Your task to perform on an android device: toggle location history Image 0: 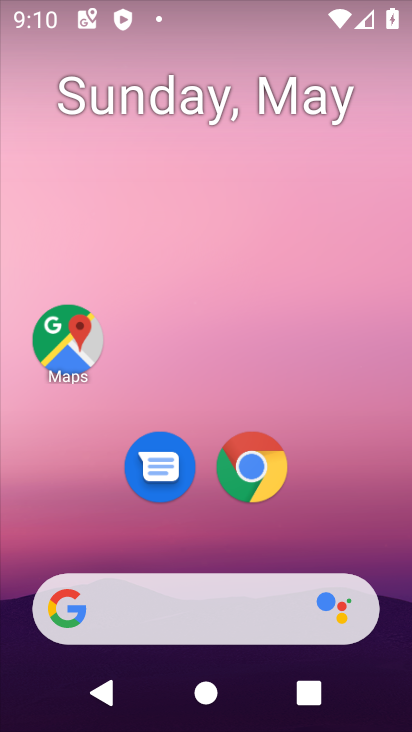
Step 0: drag from (359, 549) to (257, 179)
Your task to perform on an android device: toggle location history Image 1: 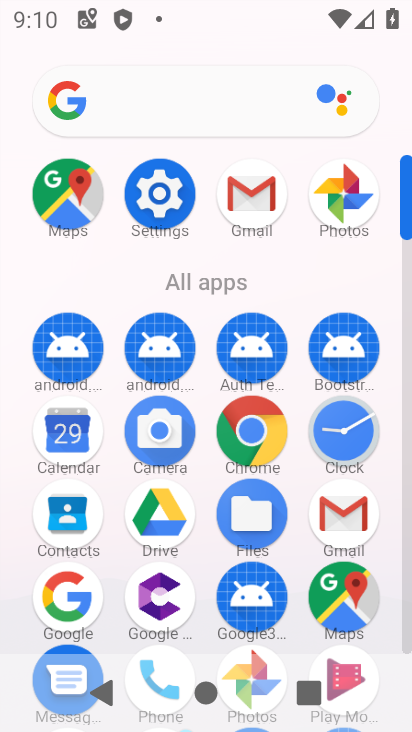
Step 1: click (56, 202)
Your task to perform on an android device: toggle location history Image 2: 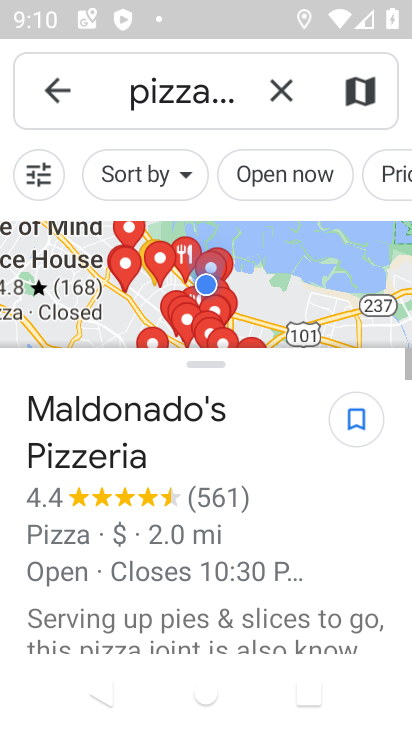
Step 2: click (55, 79)
Your task to perform on an android device: toggle location history Image 3: 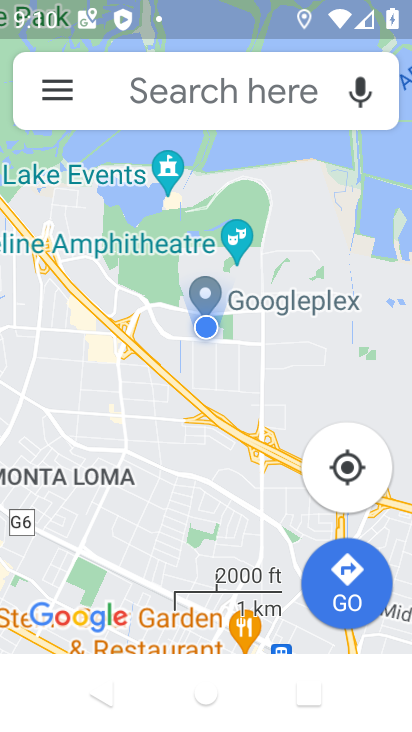
Step 3: click (55, 79)
Your task to perform on an android device: toggle location history Image 4: 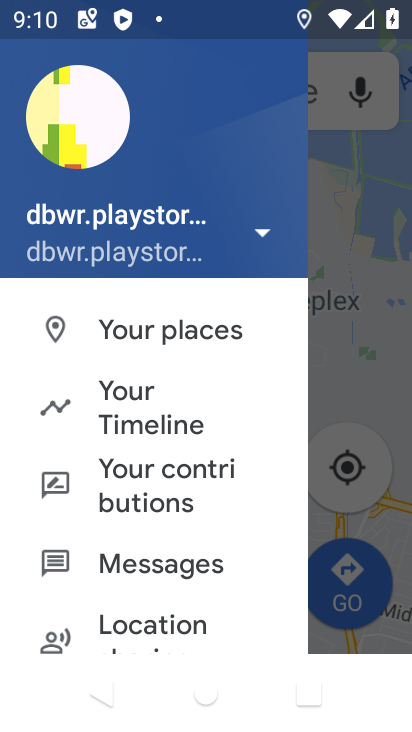
Step 4: click (167, 418)
Your task to perform on an android device: toggle location history Image 5: 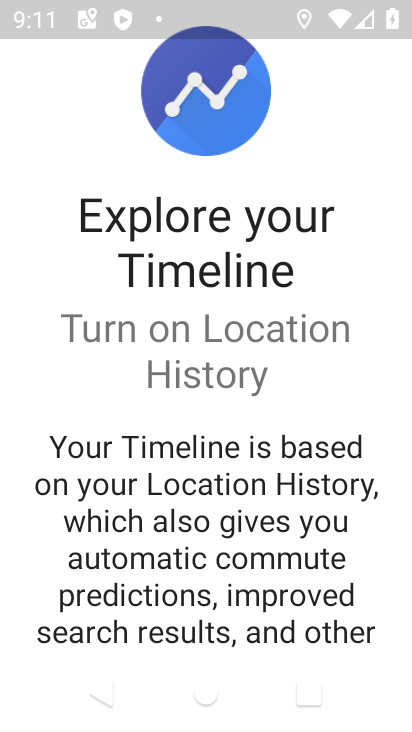
Step 5: drag from (266, 605) to (188, 264)
Your task to perform on an android device: toggle location history Image 6: 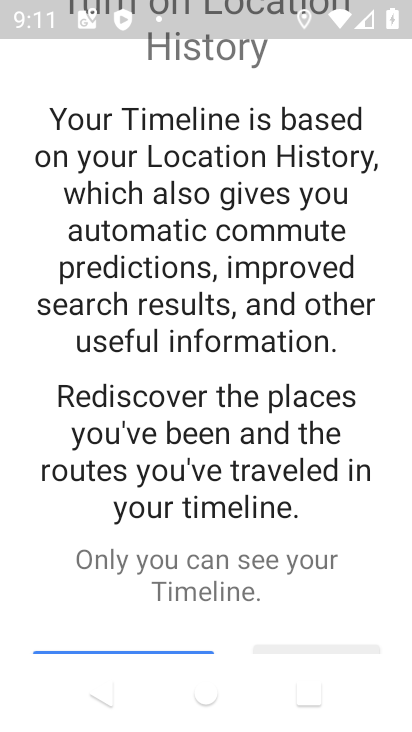
Step 6: drag from (284, 520) to (237, 175)
Your task to perform on an android device: toggle location history Image 7: 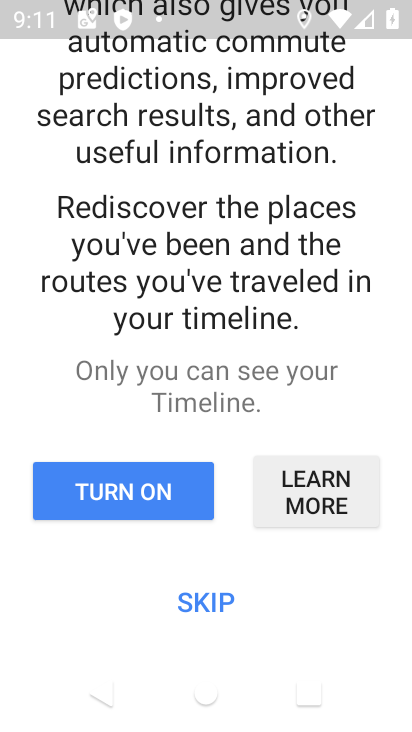
Step 7: click (212, 593)
Your task to perform on an android device: toggle location history Image 8: 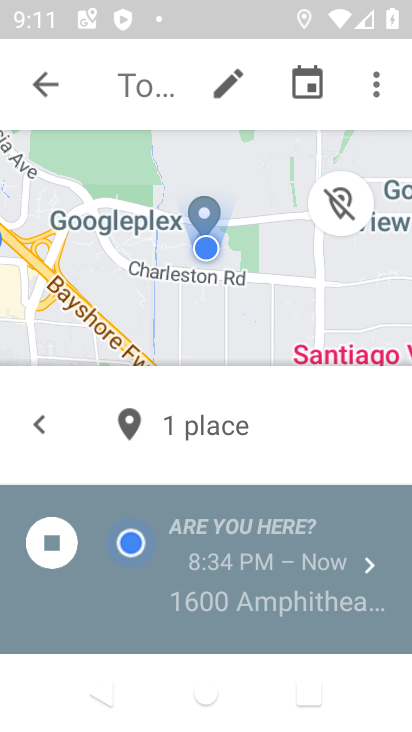
Step 8: click (377, 73)
Your task to perform on an android device: toggle location history Image 9: 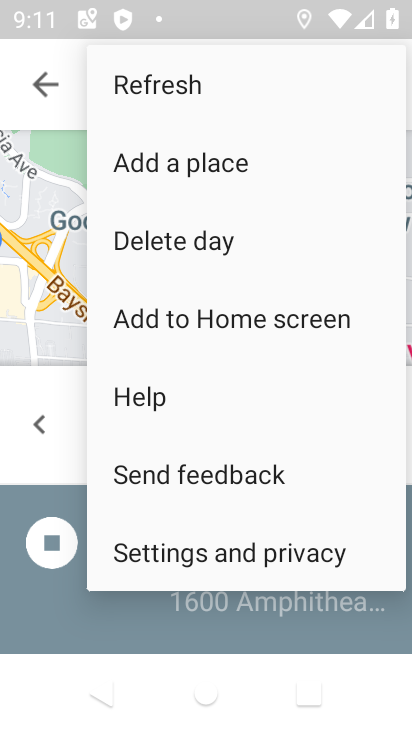
Step 9: click (281, 553)
Your task to perform on an android device: toggle location history Image 10: 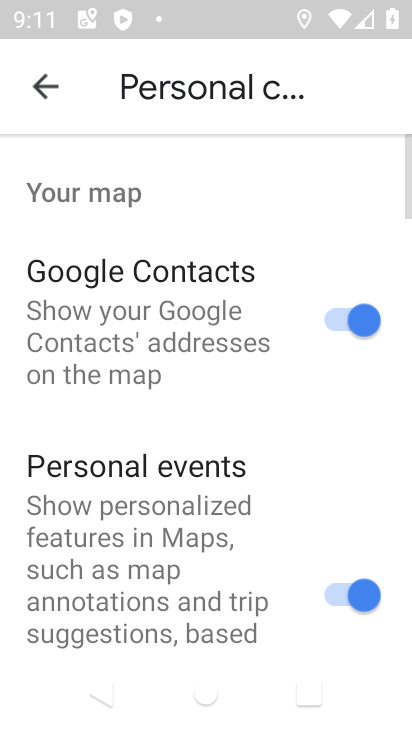
Step 10: drag from (289, 632) to (228, 157)
Your task to perform on an android device: toggle location history Image 11: 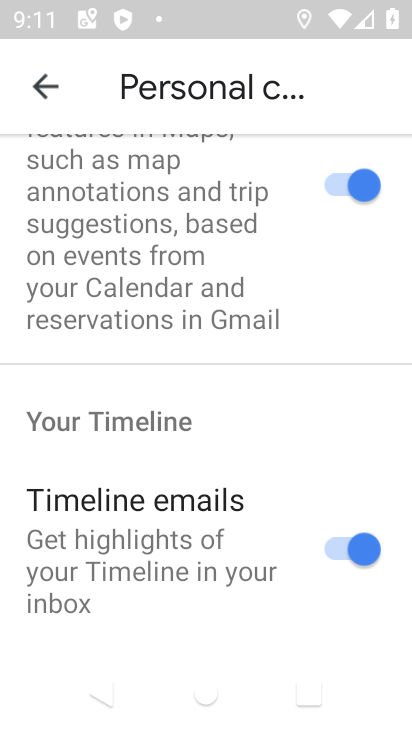
Step 11: drag from (261, 594) to (223, 160)
Your task to perform on an android device: toggle location history Image 12: 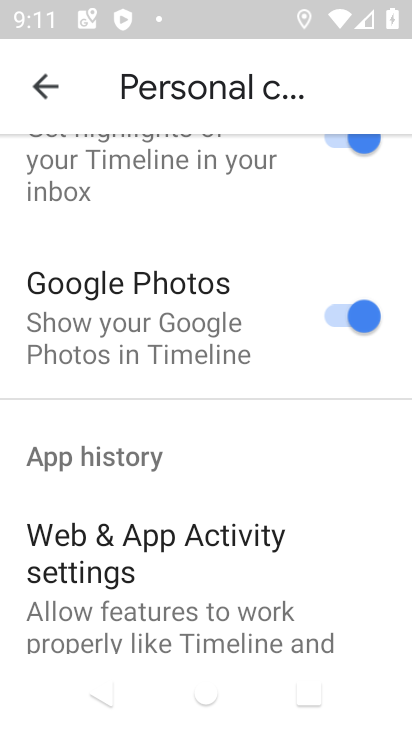
Step 12: drag from (289, 606) to (234, 121)
Your task to perform on an android device: toggle location history Image 13: 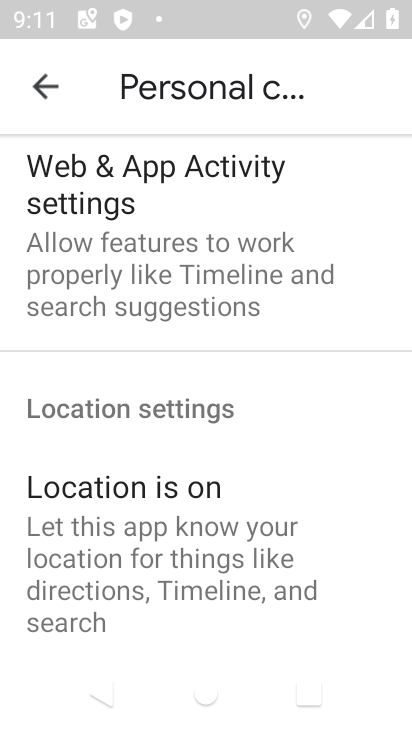
Step 13: drag from (315, 528) to (275, 115)
Your task to perform on an android device: toggle location history Image 14: 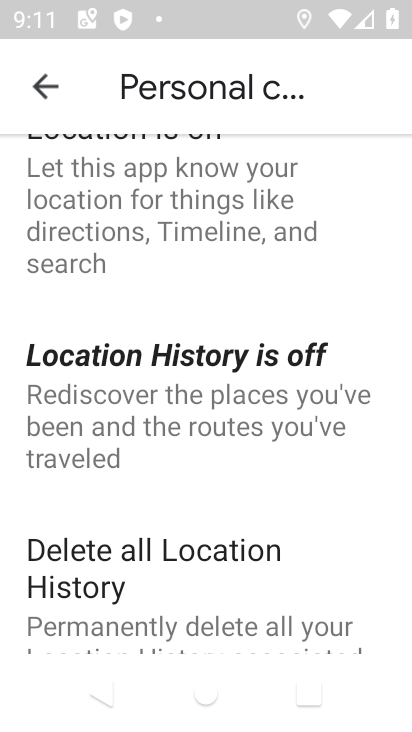
Step 14: click (246, 413)
Your task to perform on an android device: toggle location history Image 15: 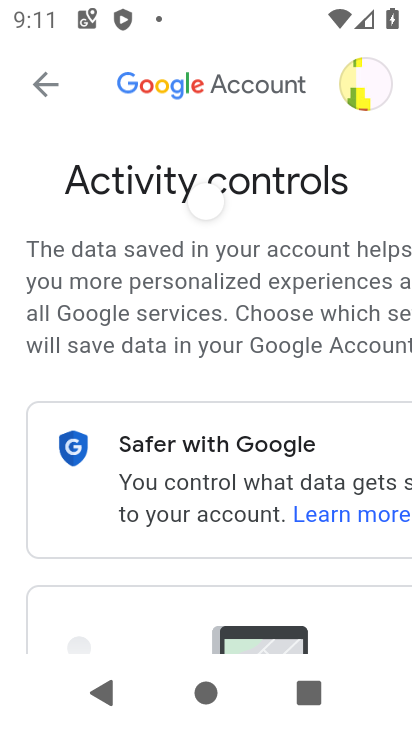
Step 15: drag from (248, 564) to (193, 10)
Your task to perform on an android device: toggle location history Image 16: 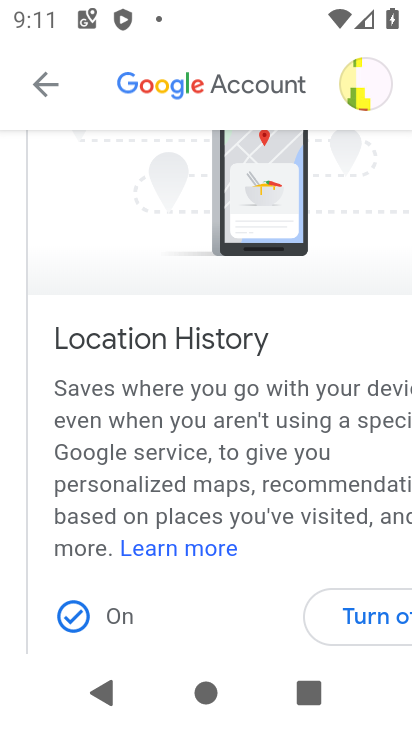
Step 16: drag from (170, 437) to (139, 136)
Your task to perform on an android device: toggle location history Image 17: 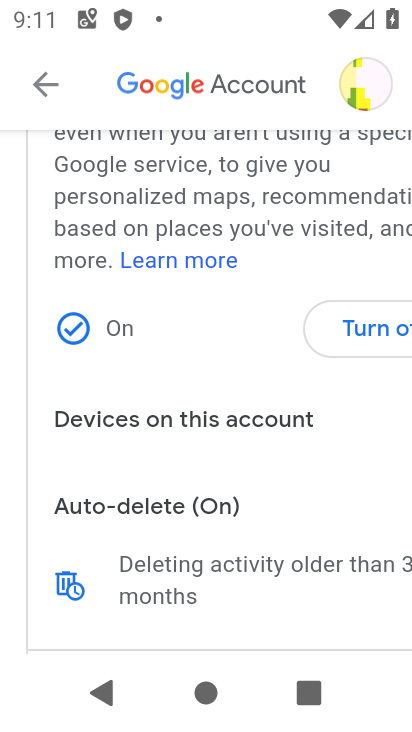
Step 17: click (390, 329)
Your task to perform on an android device: toggle location history Image 18: 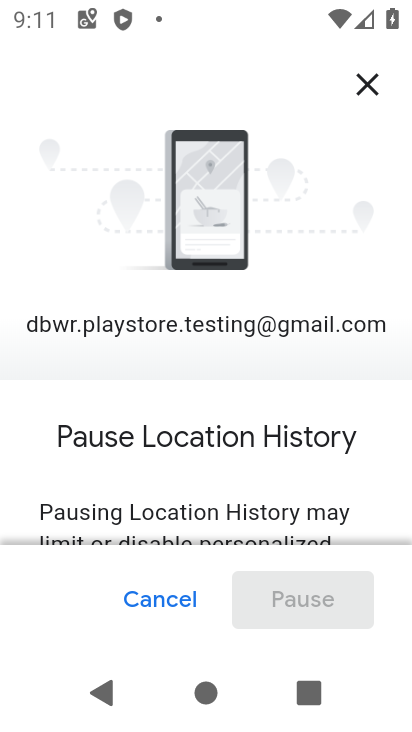
Step 18: drag from (270, 495) to (215, 130)
Your task to perform on an android device: toggle location history Image 19: 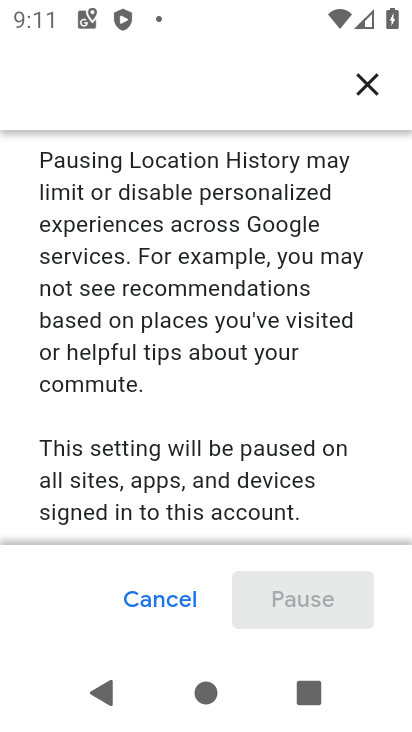
Step 19: drag from (286, 437) to (201, 56)
Your task to perform on an android device: toggle location history Image 20: 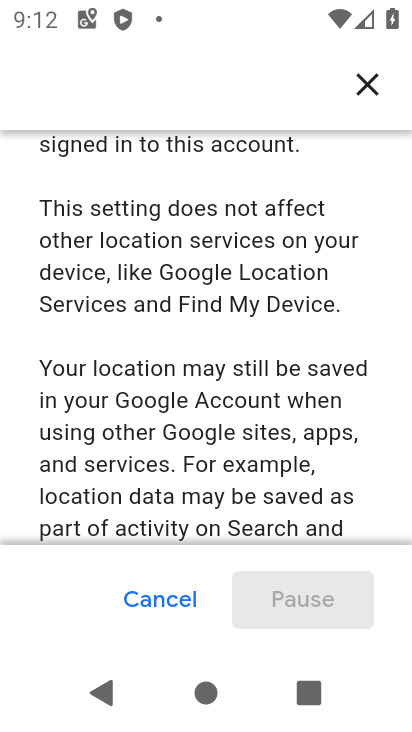
Step 20: drag from (259, 465) to (216, 82)
Your task to perform on an android device: toggle location history Image 21: 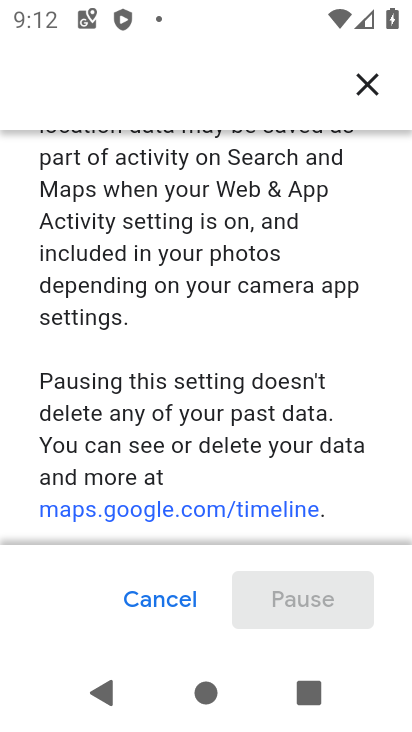
Step 21: drag from (276, 427) to (235, 78)
Your task to perform on an android device: toggle location history Image 22: 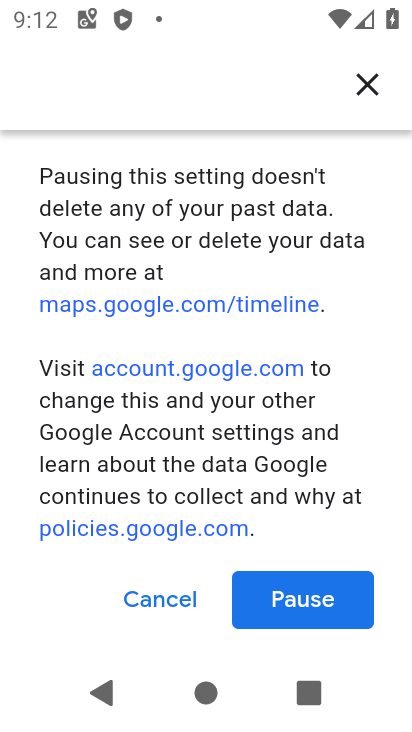
Step 22: click (316, 588)
Your task to perform on an android device: toggle location history Image 23: 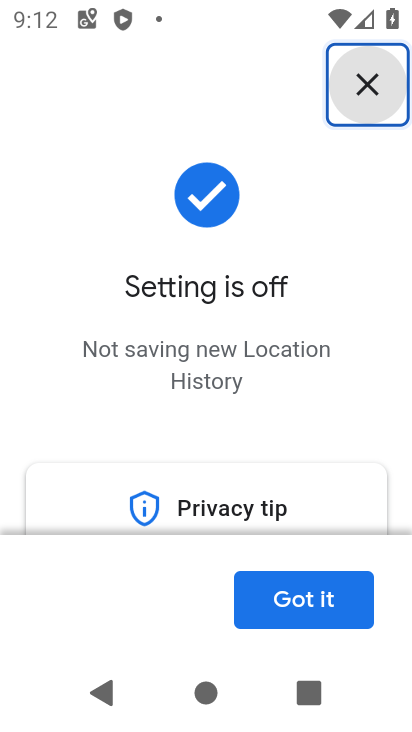
Step 23: click (316, 588)
Your task to perform on an android device: toggle location history Image 24: 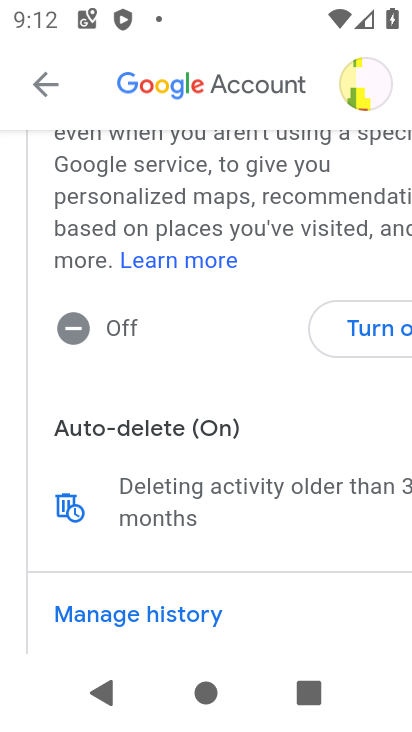
Step 24: task complete